Your task to perform on an android device: Is it going to rain today? Image 0: 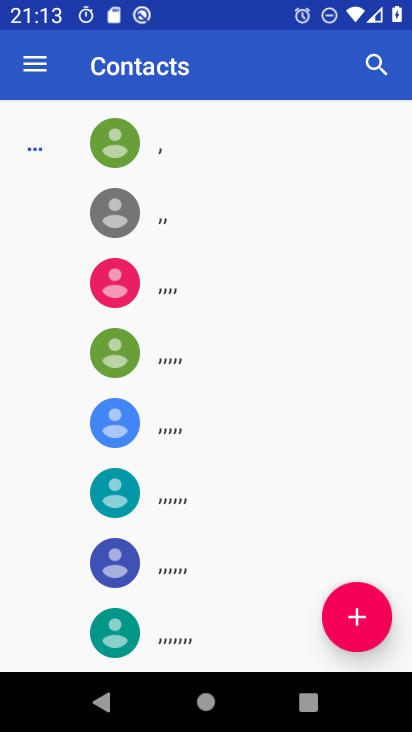
Step 0: press home button
Your task to perform on an android device: Is it going to rain today? Image 1: 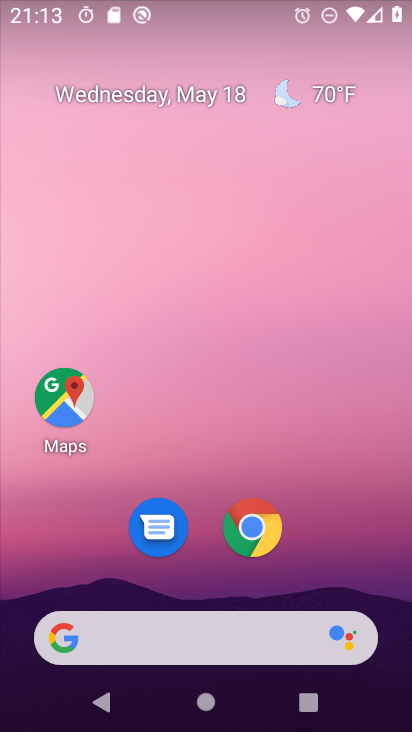
Step 1: click (331, 91)
Your task to perform on an android device: Is it going to rain today? Image 2: 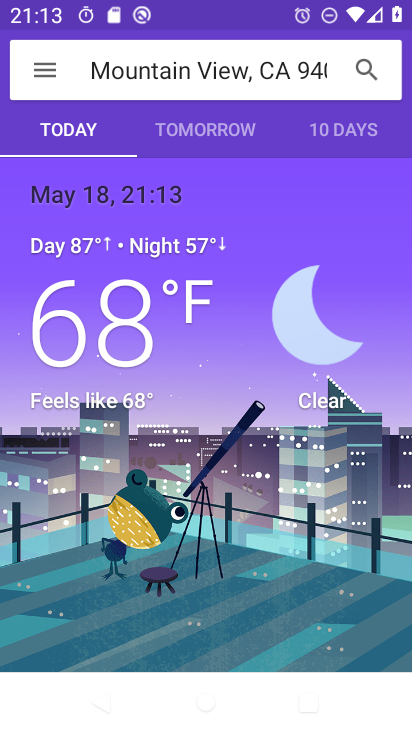
Step 2: task complete